Your task to perform on an android device: turn on translation in the chrome app Image 0: 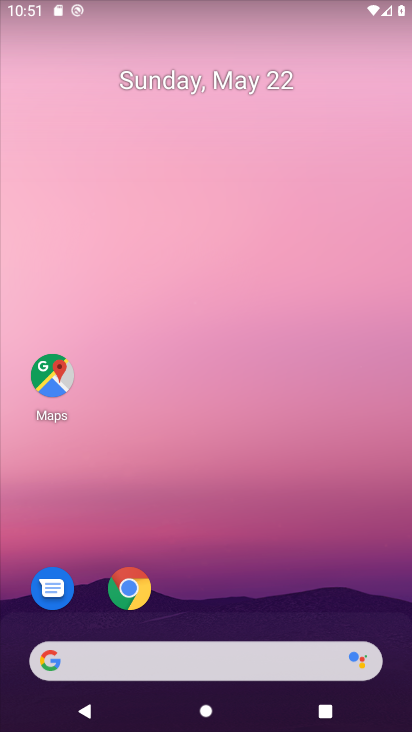
Step 0: click (141, 600)
Your task to perform on an android device: turn on translation in the chrome app Image 1: 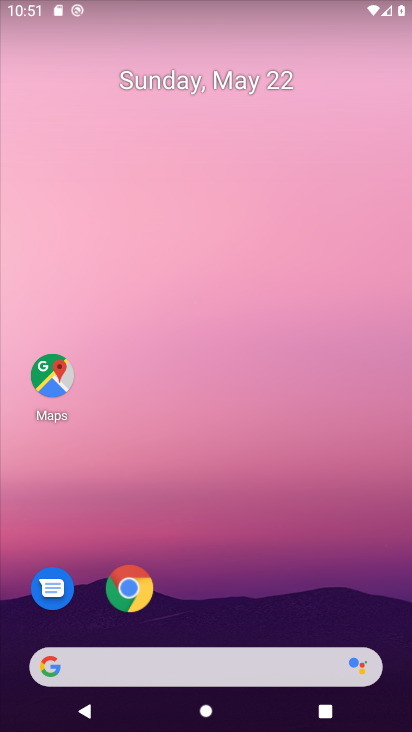
Step 1: drag from (174, 583) to (212, 307)
Your task to perform on an android device: turn on translation in the chrome app Image 2: 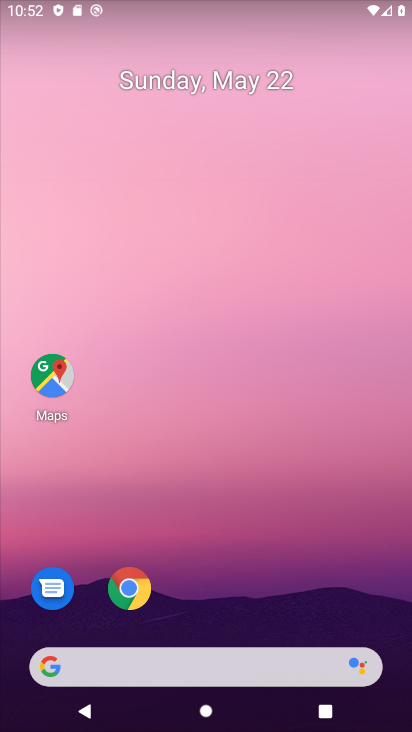
Step 2: drag from (286, 646) to (251, 277)
Your task to perform on an android device: turn on translation in the chrome app Image 3: 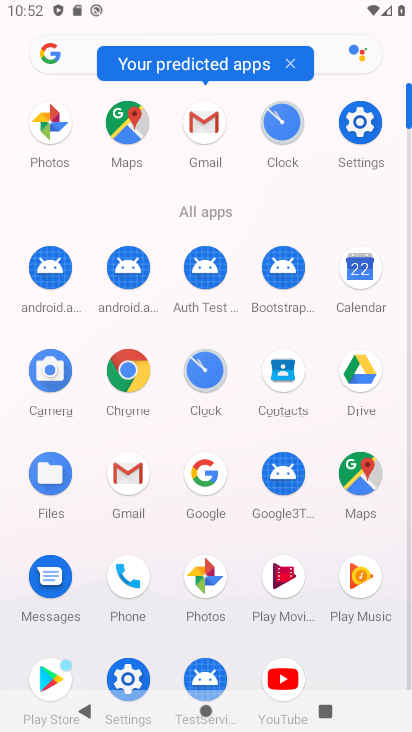
Step 3: click (139, 385)
Your task to perform on an android device: turn on translation in the chrome app Image 4: 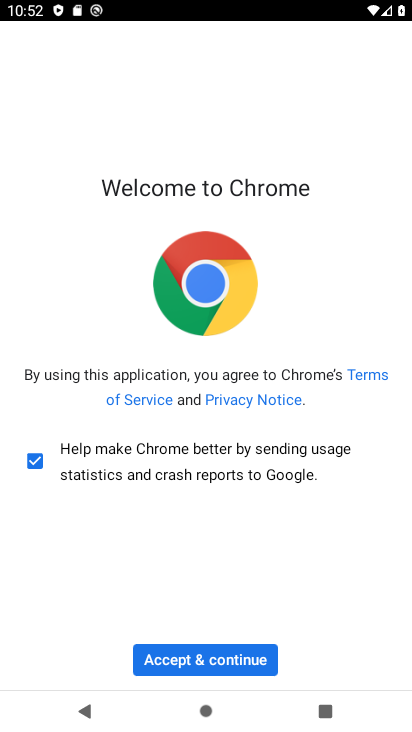
Step 4: click (235, 661)
Your task to perform on an android device: turn on translation in the chrome app Image 5: 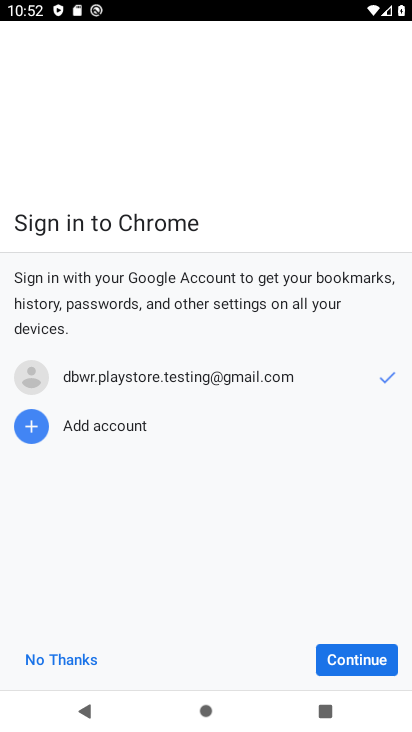
Step 5: click (369, 657)
Your task to perform on an android device: turn on translation in the chrome app Image 6: 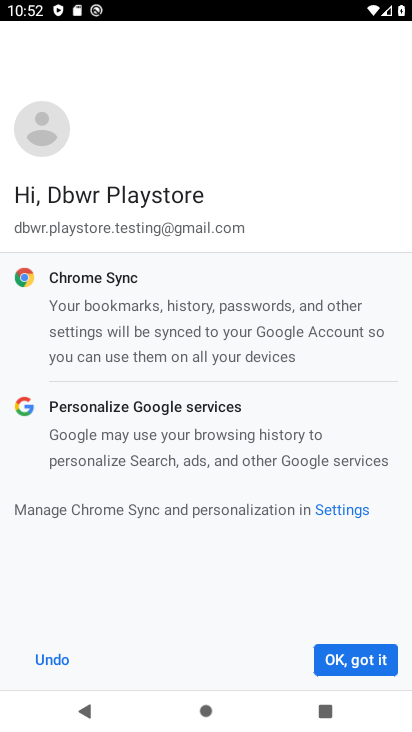
Step 6: click (368, 661)
Your task to perform on an android device: turn on translation in the chrome app Image 7: 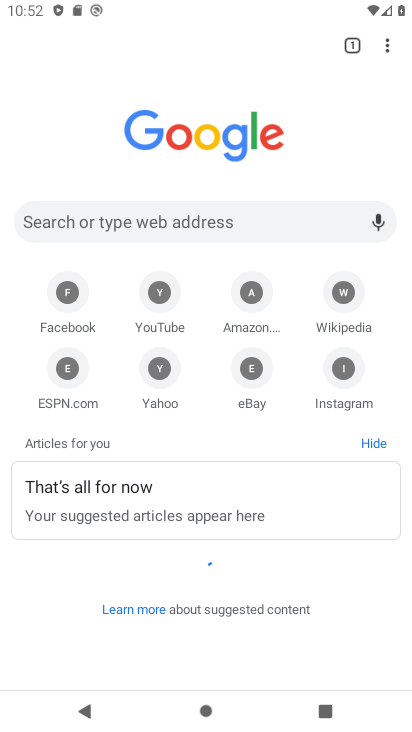
Step 7: click (389, 49)
Your task to perform on an android device: turn on translation in the chrome app Image 8: 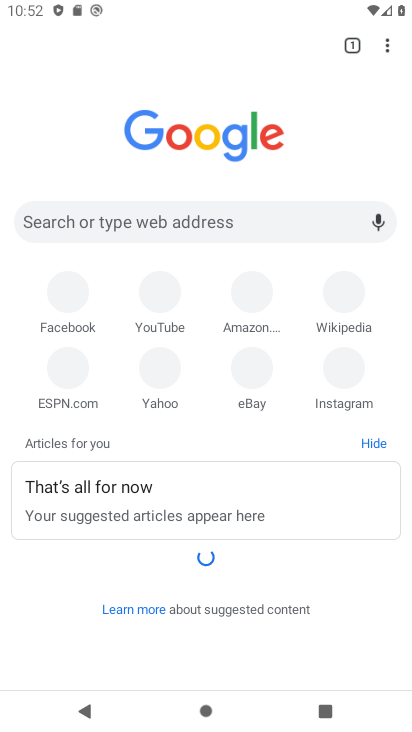
Step 8: click (384, 46)
Your task to perform on an android device: turn on translation in the chrome app Image 9: 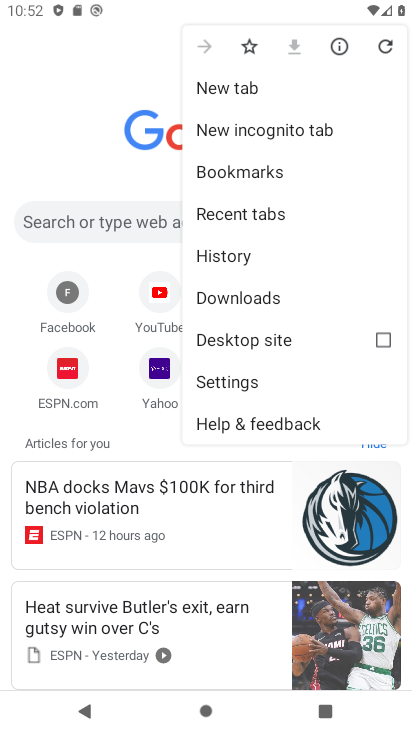
Step 9: click (225, 377)
Your task to perform on an android device: turn on translation in the chrome app Image 10: 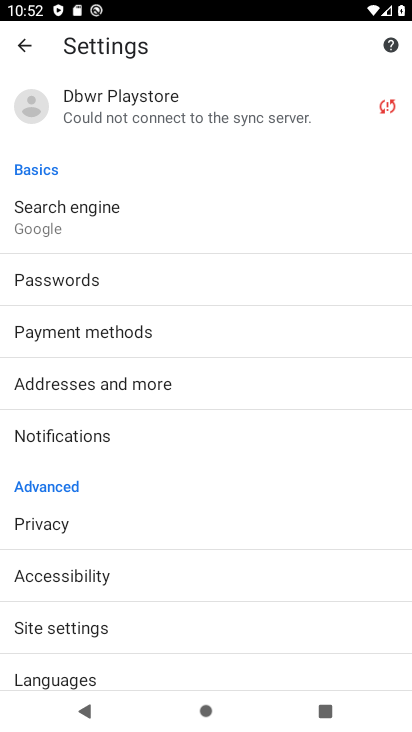
Step 10: click (77, 688)
Your task to perform on an android device: turn on translation in the chrome app Image 11: 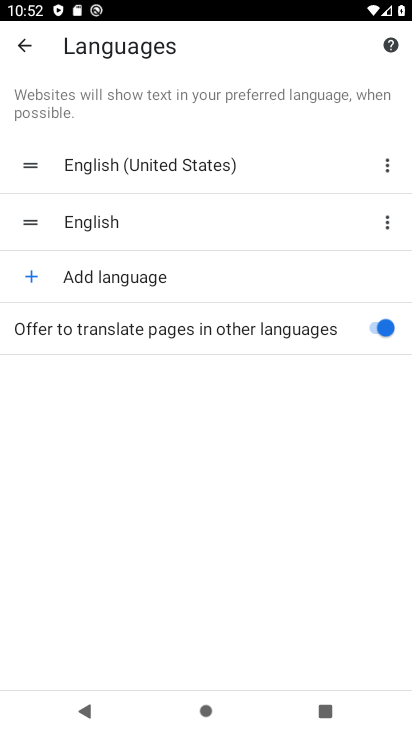
Step 11: task complete